Your task to perform on an android device: show emergency info Image 0: 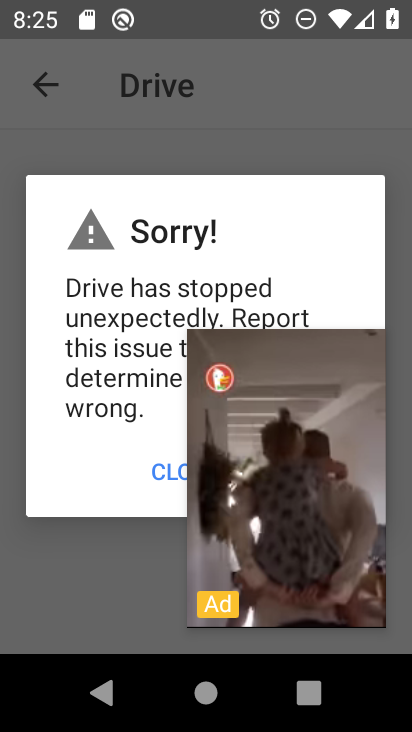
Step 0: press home button
Your task to perform on an android device: show emergency info Image 1: 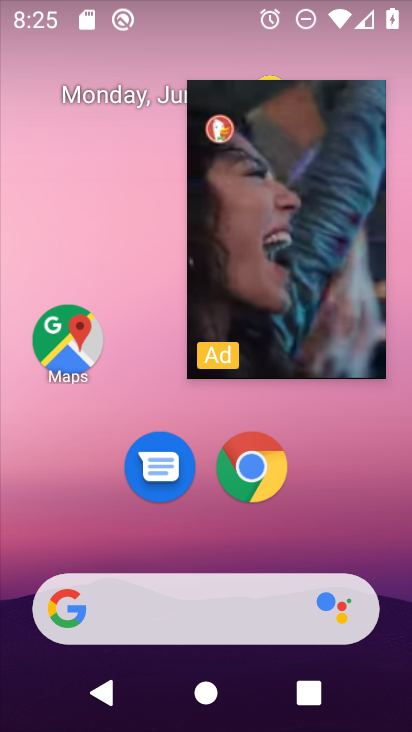
Step 1: drag from (356, 521) to (329, 83)
Your task to perform on an android device: show emergency info Image 2: 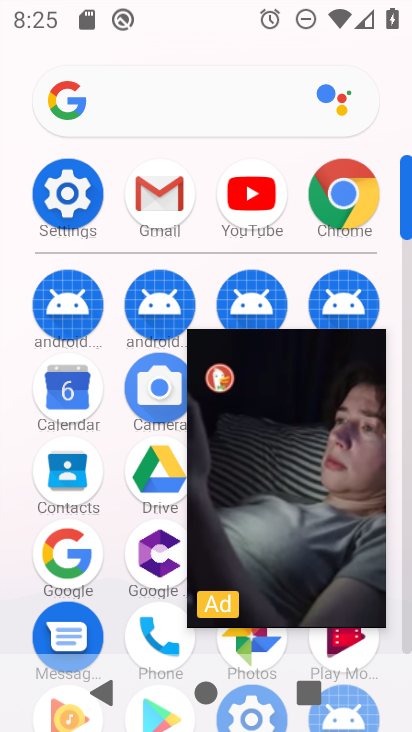
Step 2: click (74, 206)
Your task to perform on an android device: show emergency info Image 3: 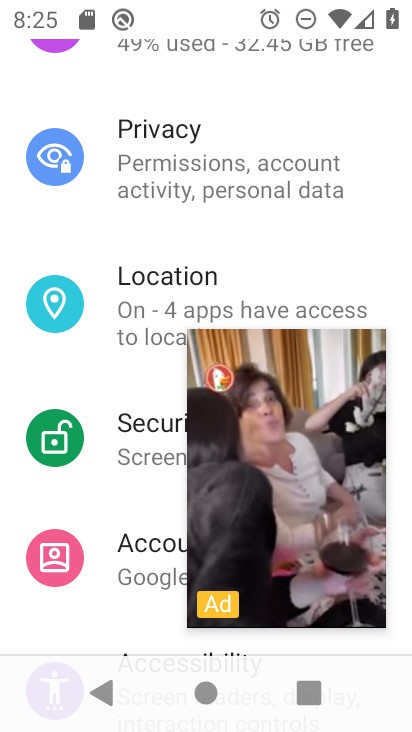
Step 3: drag from (128, 447) to (142, 305)
Your task to perform on an android device: show emergency info Image 4: 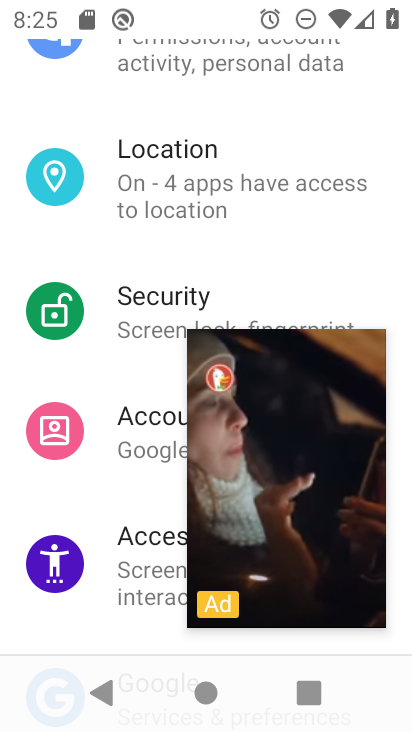
Step 4: drag from (146, 442) to (139, 232)
Your task to perform on an android device: show emergency info Image 5: 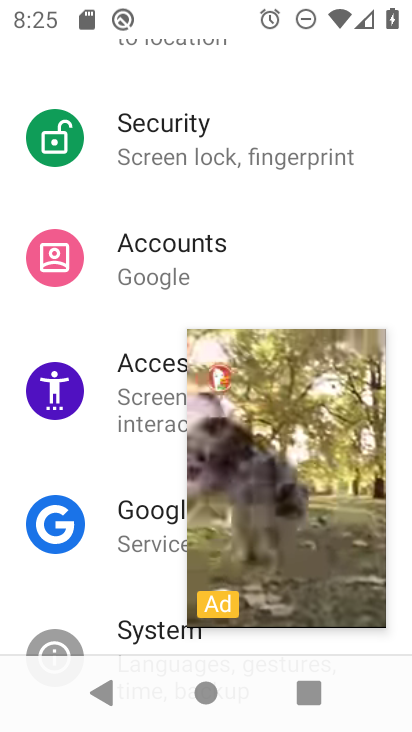
Step 5: drag from (131, 420) to (134, 199)
Your task to perform on an android device: show emergency info Image 6: 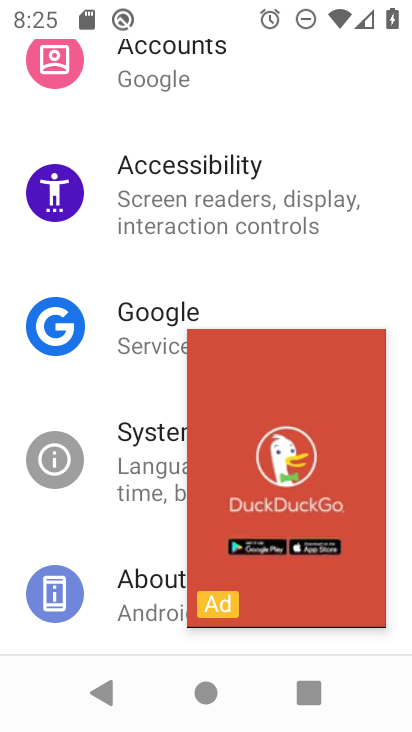
Step 6: drag from (117, 521) to (135, 256)
Your task to perform on an android device: show emergency info Image 7: 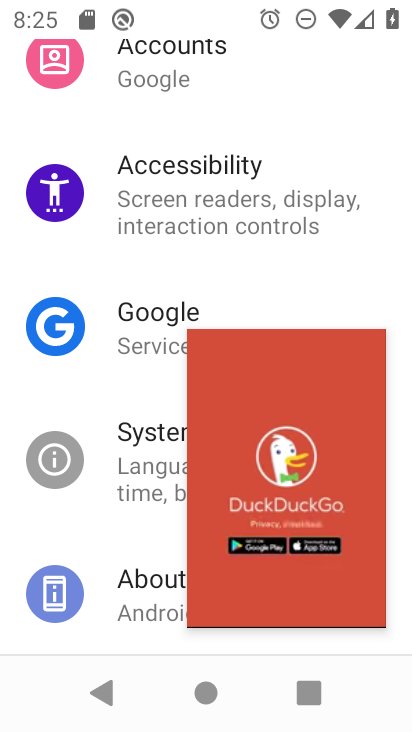
Step 7: click (149, 605)
Your task to perform on an android device: show emergency info Image 8: 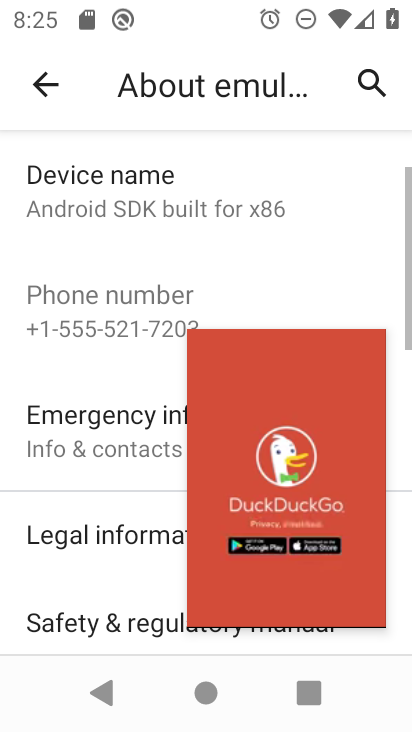
Step 8: drag from (130, 525) to (130, 309)
Your task to perform on an android device: show emergency info Image 9: 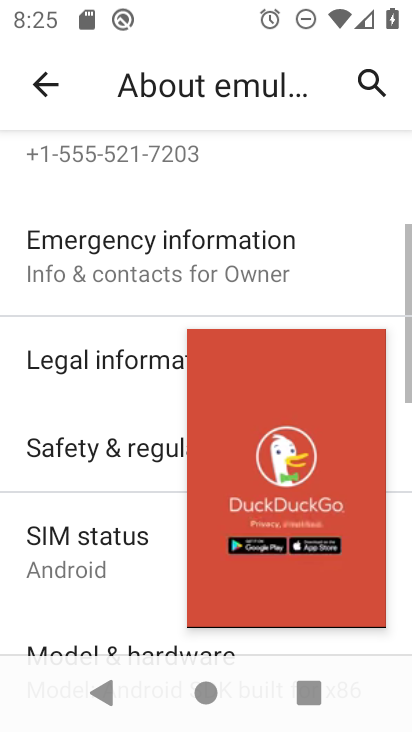
Step 9: click (125, 272)
Your task to perform on an android device: show emergency info Image 10: 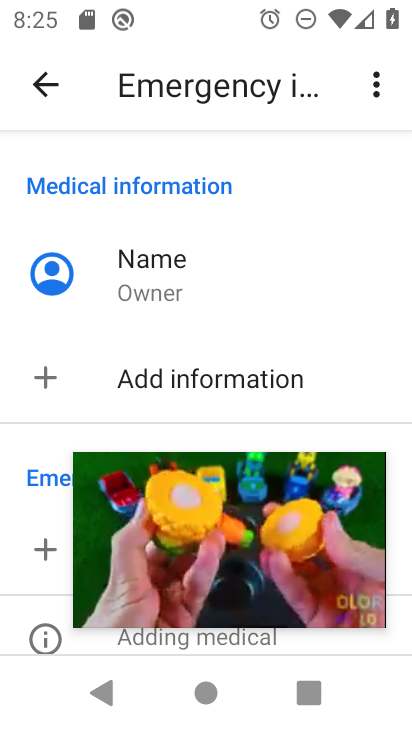
Step 10: task complete